Your task to perform on an android device: Open calendar and show me the first week of next month Image 0: 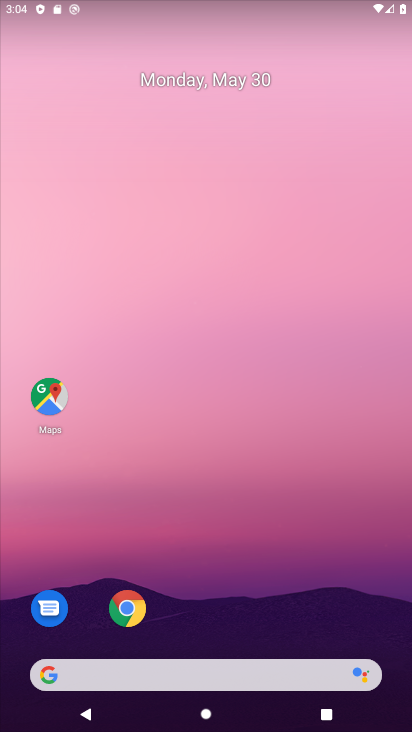
Step 0: drag from (296, 388) to (305, 206)
Your task to perform on an android device: Open calendar and show me the first week of next month Image 1: 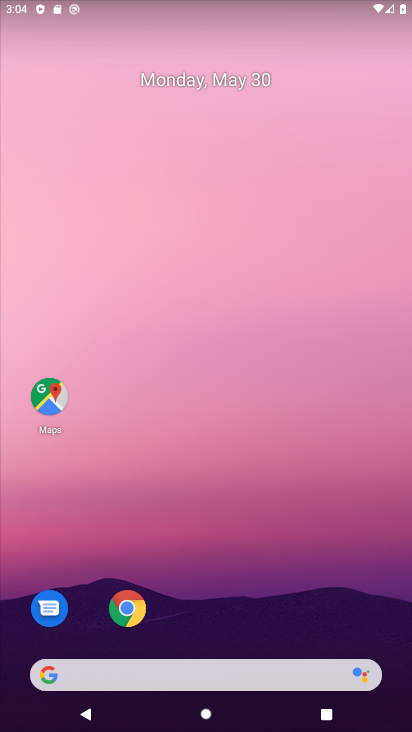
Step 1: drag from (222, 616) to (294, 243)
Your task to perform on an android device: Open calendar and show me the first week of next month Image 2: 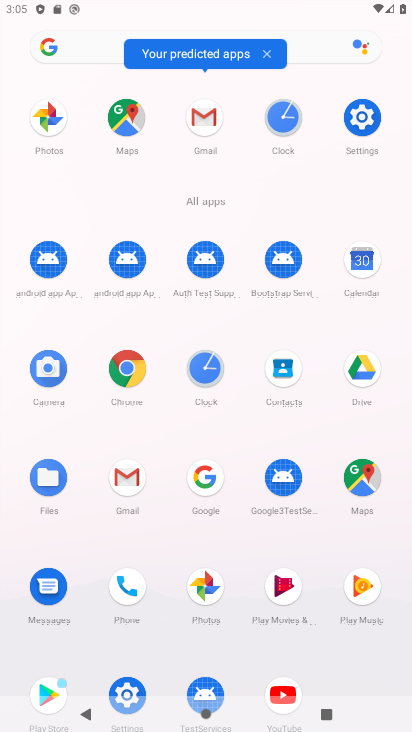
Step 2: click (360, 260)
Your task to perform on an android device: Open calendar and show me the first week of next month Image 3: 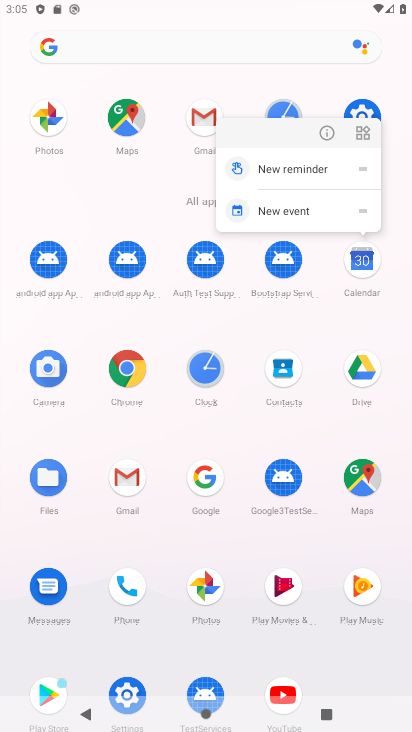
Step 3: click (358, 259)
Your task to perform on an android device: Open calendar and show me the first week of next month Image 4: 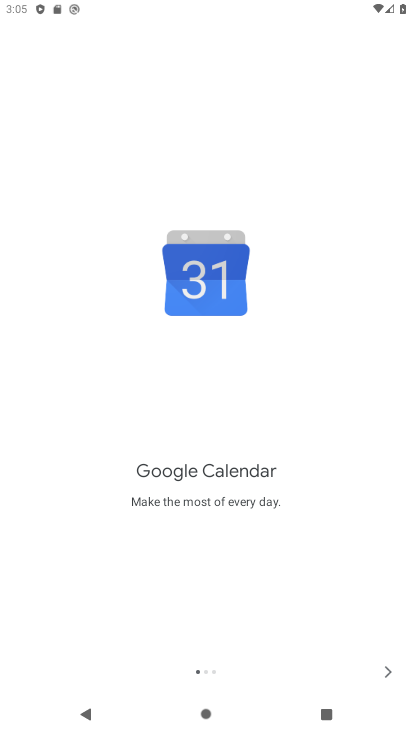
Step 4: click (380, 662)
Your task to perform on an android device: Open calendar and show me the first week of next month Image 5: 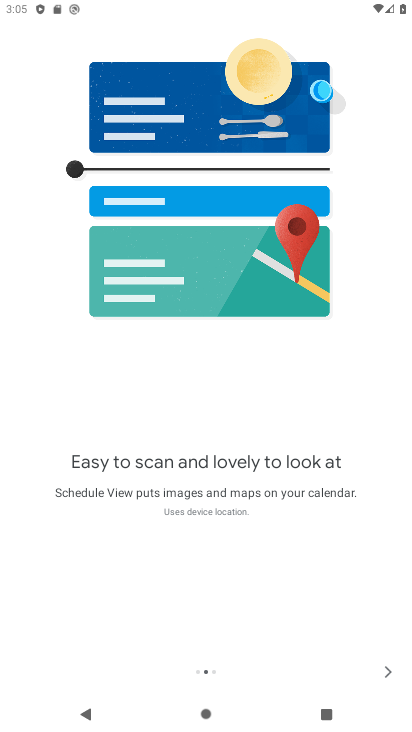
Step 5: click (379, 658)
Your task to perform on an android device: Open calendar and show me the first week of next month Image 6: 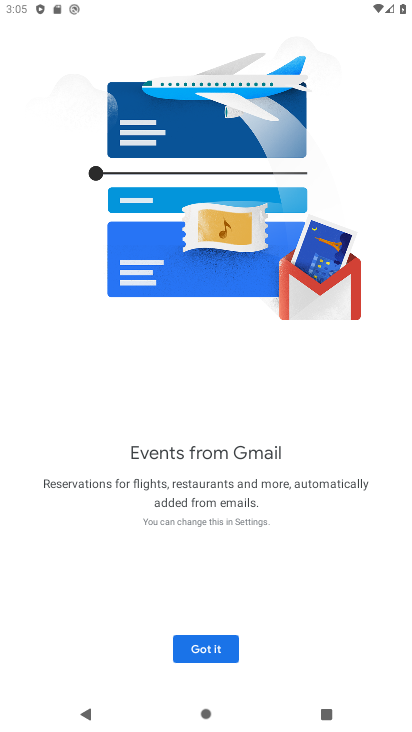
Step 6: click (218, 634)
Your task to perform on an android device: Open calendar and show me the first week of next month Image 7: 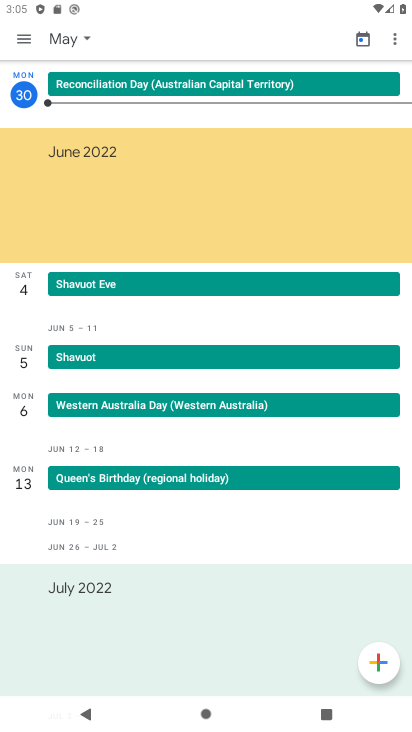
Step 7: click (26, 43)
Your task to perform on an android device: Open calendar and show me the first week of next month Image 8: 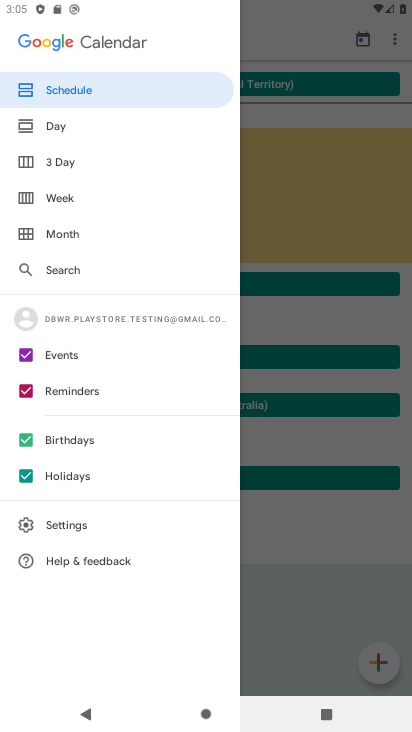
Step 8: click (68, 221)
Your task to perform on an android device: Open calendar and show me the first week of next month Image 9: 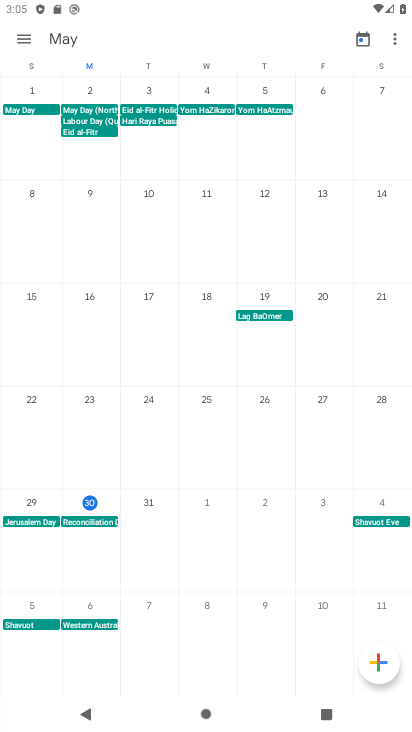
Step 9: task complete